Your task to perform on an android device: Open Yahoo.com Image 0: 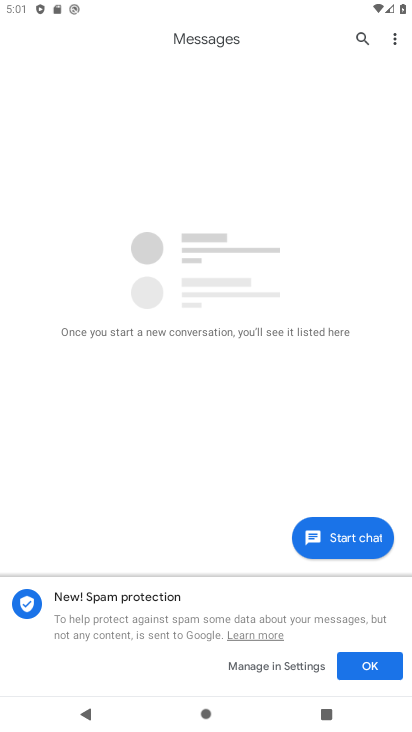
Step 0: press home button
Your task to perform on an android device: Open Yahoo.com Image 1: 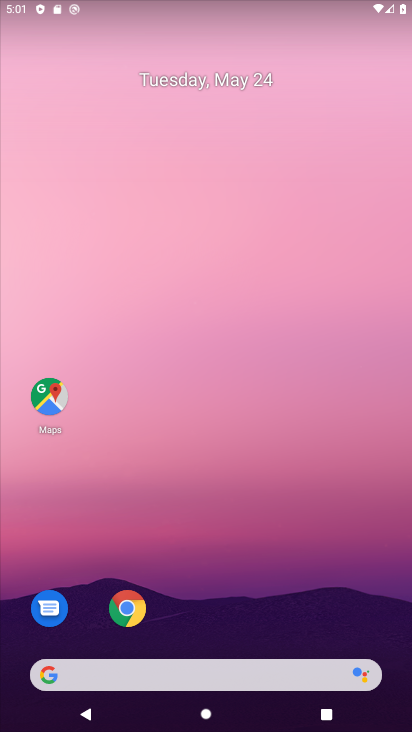
Step 1: drag from (232, 581) to (238, 199)
Your task to perform on an android device: Open Yahoo.com Image 2: 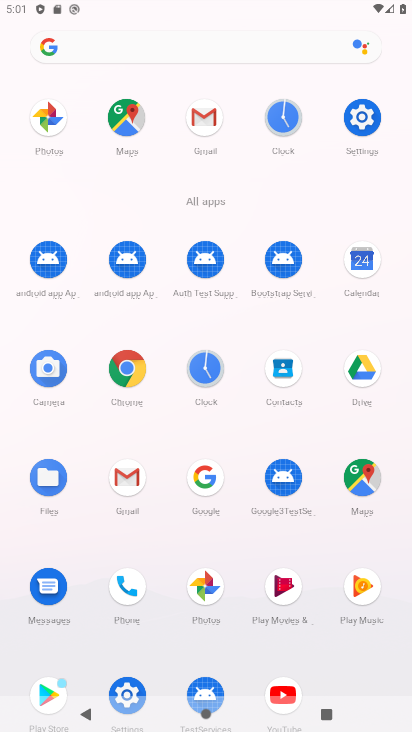
Step 2: click (137, 353)
Your task to perform on an android device: Open Yahoo.com Image 3: 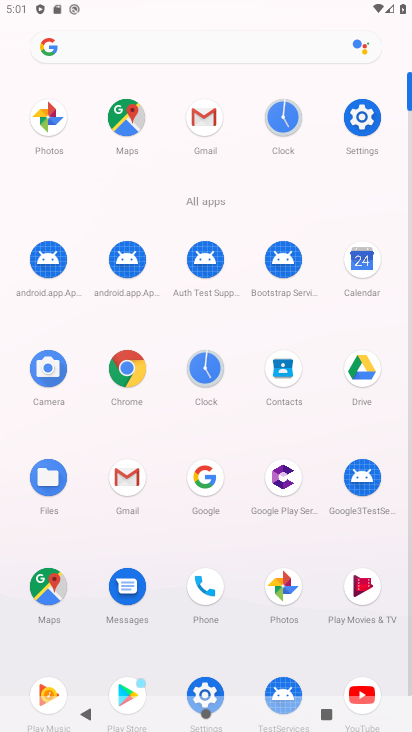
Step 3: click (127, 383)
Your task to perform on an android device: Open Yahoo.com Image 4: 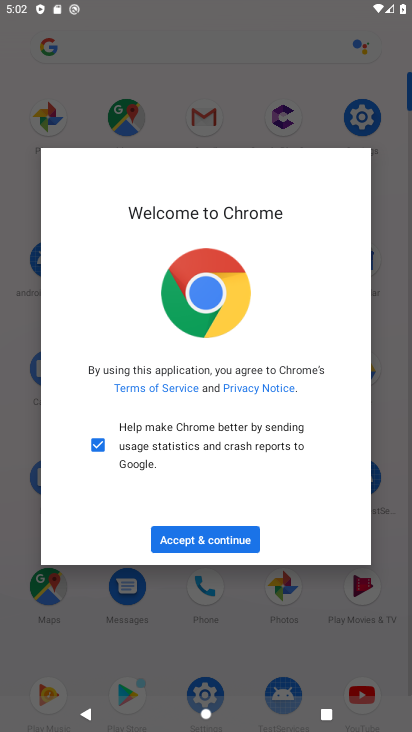
Step 4: click (202, 539)
Your task to perform on an android device: Open Yahoo.com Image 5: 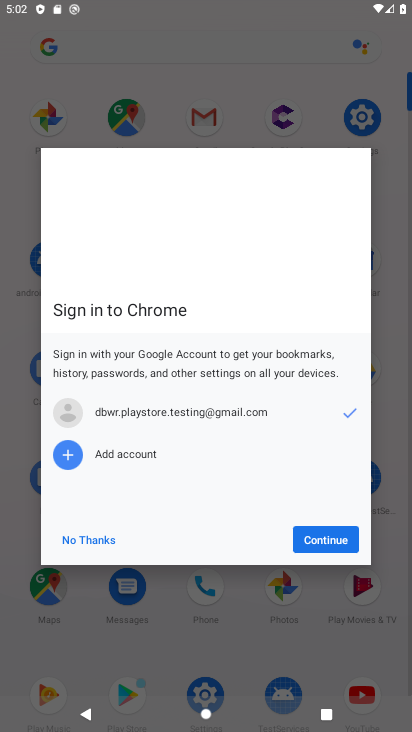
Step 5: click (303, 546)
Your task to perform on an android device: Open Yahoo.com Image 6: 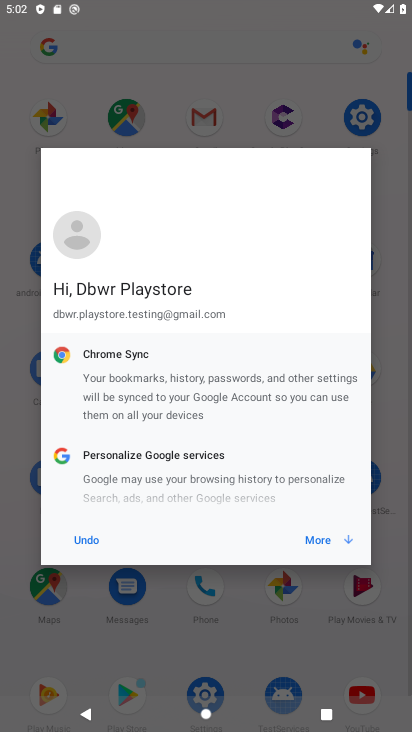
Step 6: click (330, 543)
Your task to perform on an android device: Open Yahoo.com Image 7: 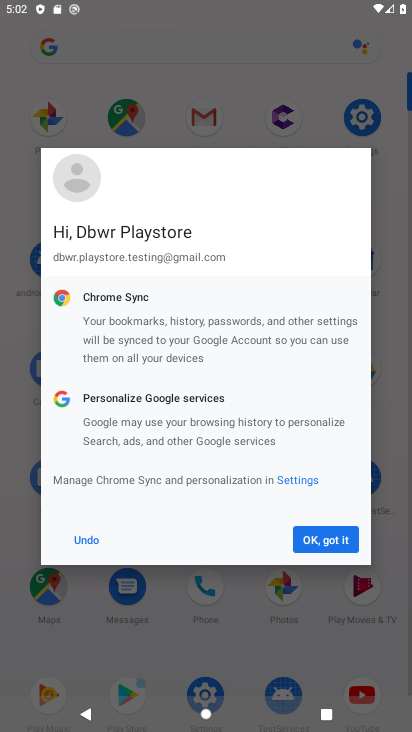
Step 7: click (320, 543)
Your task to perform on an android device: Open Yahoo.com Image 8: 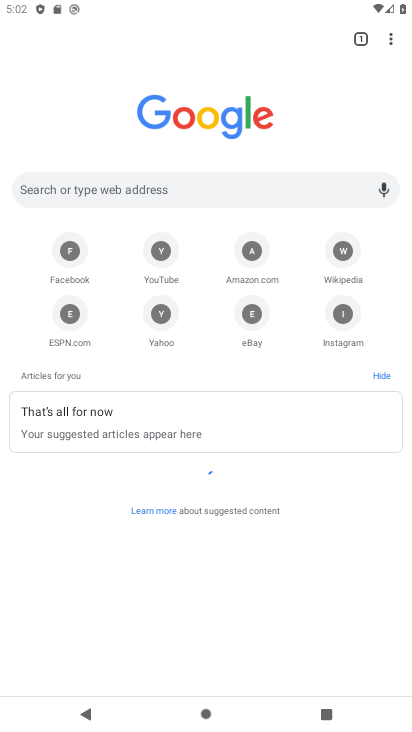
Step 8: click (162, 332)
Your task to perform on an android device: Open Yahoo.com Image 9: 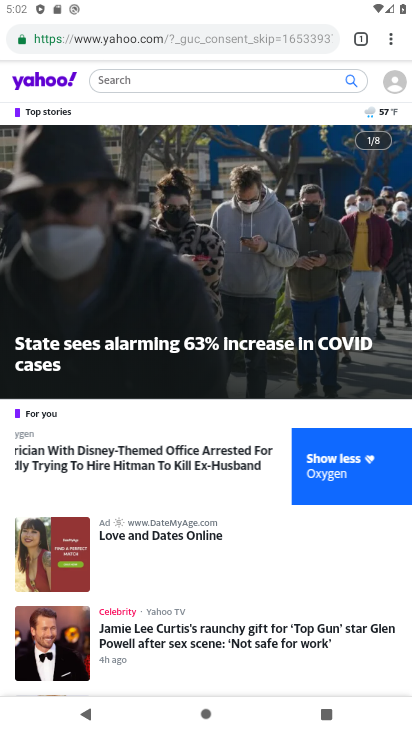
Step 9: task complete